Your task to perform on an android device: Go to display settings Image 0: 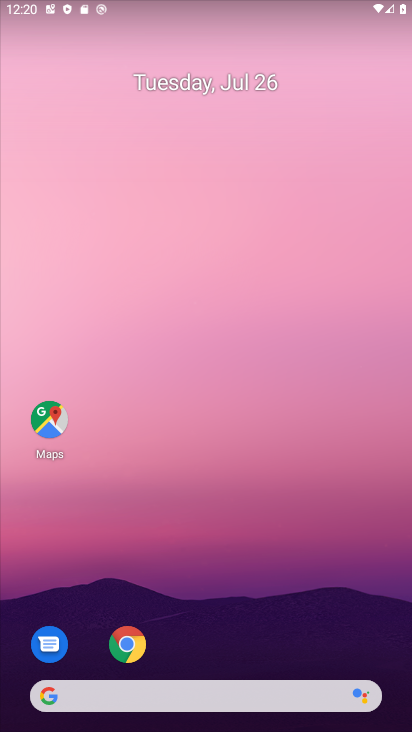
Step 0: drag from (252, 573) to (247, 90)
Your task to perform on an android device: Go to display settings Image 1: 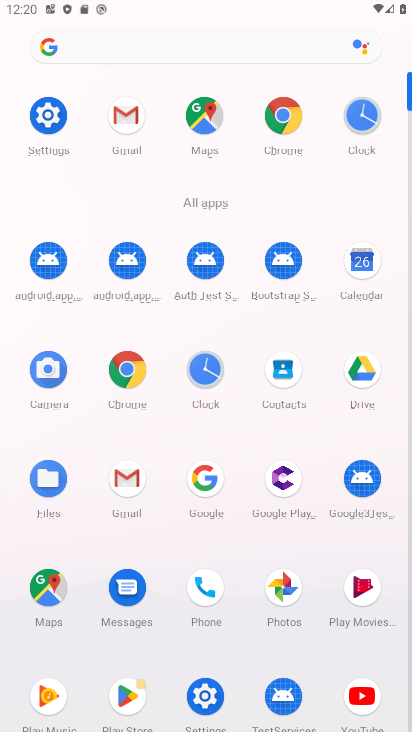
Step 1: click (42, 113)
Your task to perform on an android device: Go to display settings Image 2: 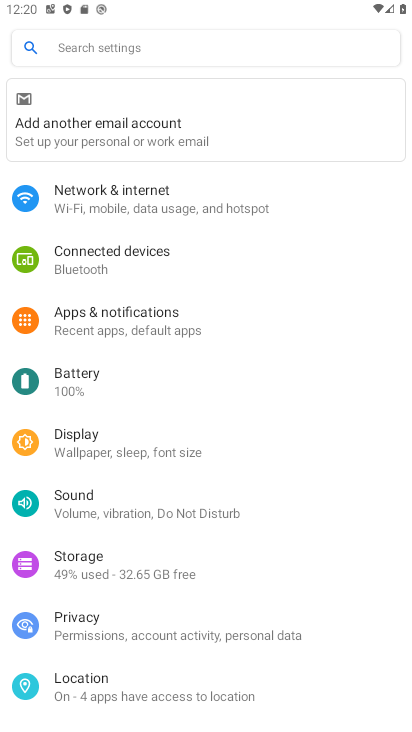
Step 2: drag from (132, 608) to (145, 284)
Your task to perform on an android device: Go to display settings Image 3: 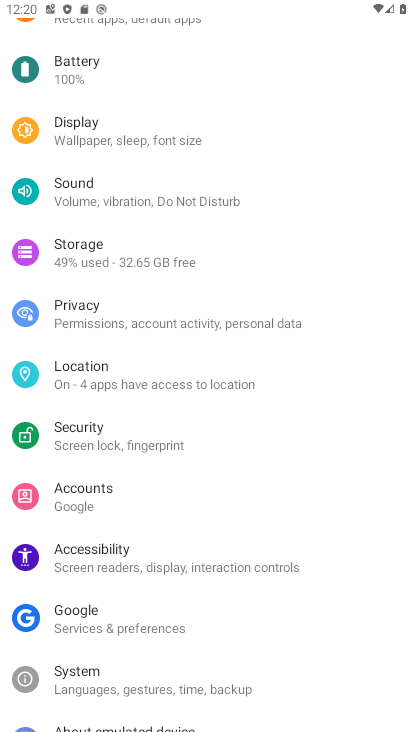
Step 3: click (101, 128)
Your task to perform on an android device: Go to display settings Image 4: 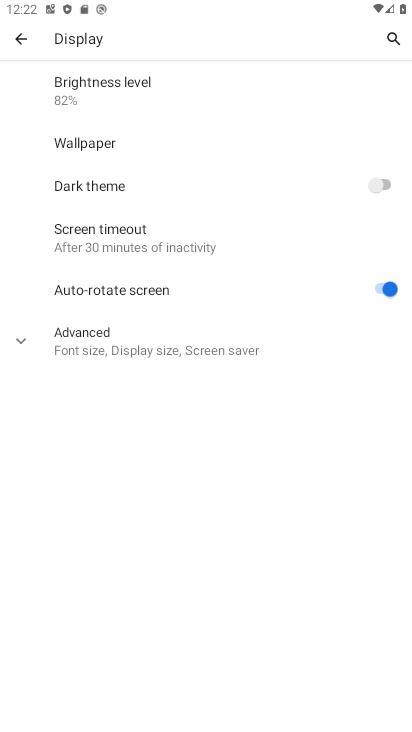
Step 4: task complete